Your task to perform on an android device: Open settings on Google Maps Image 0: 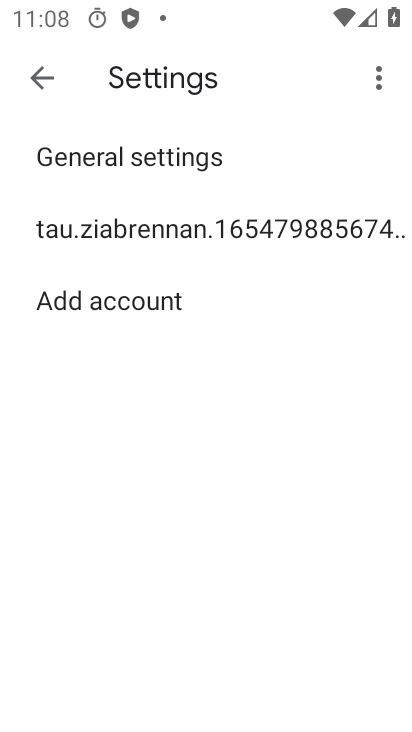
Step 0: press back button
Your task to perform on an android device: Open settings on Google Maps Image 1: 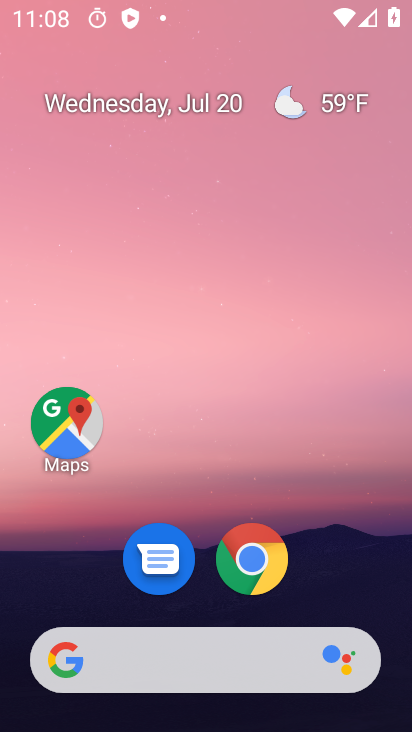
Step 1: press back button
Your task to perform on an android device: Open settings on Google Maps Image 2: 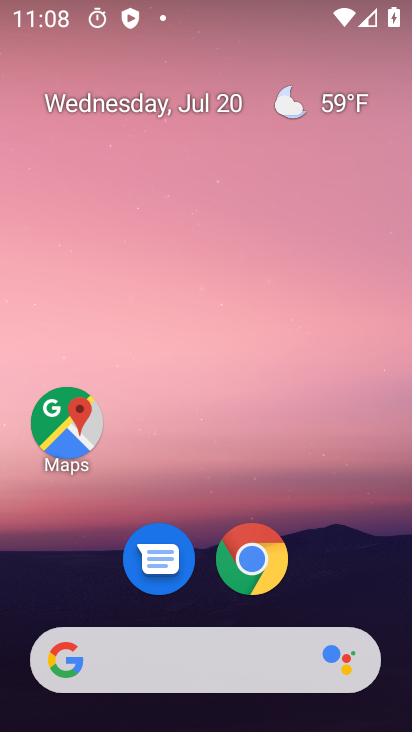
Step 2: click (69, 433)
Your task to perform on an android device: Open settings on Google Maps Image 3: 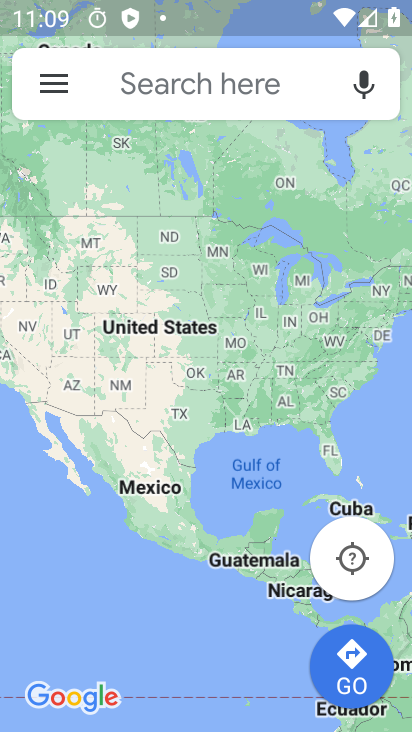
Step 3: click (58, 79)
Your task to perform on an android device: Open settings on Google Maps Image 4: 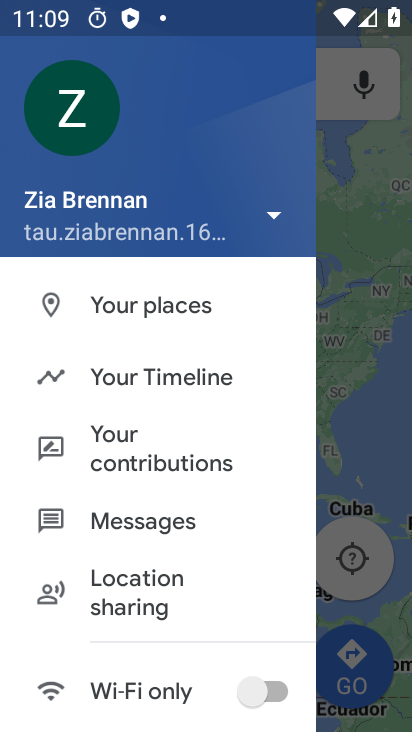
Step 4: drag from (189, 465) to (185, 94)
Your task to perform on an android device: Open settings on Google Maps Image 5: 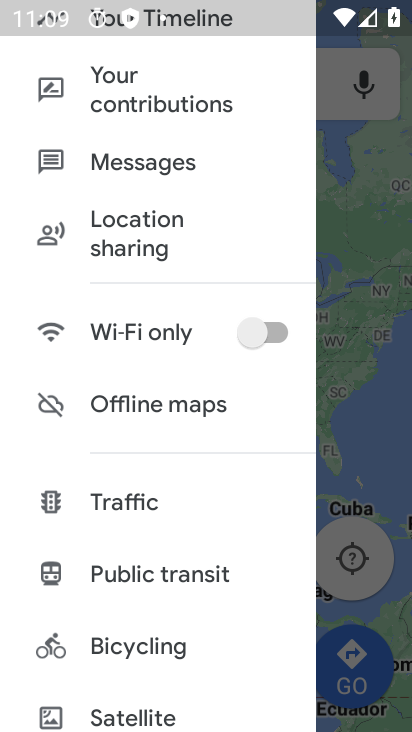
Step 5: drag from (143, 639) to (188, 120)
Your task to perform on an android device: Open settings on Google Maps Image 6: 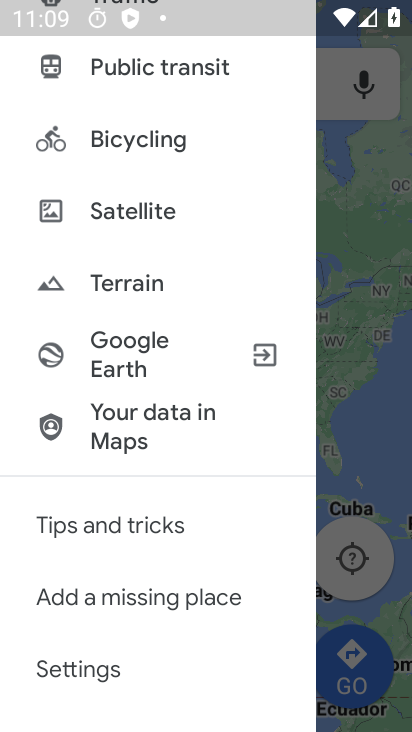
Step 6: click (75, 684)
Your task to perform on an android device: Open settings on Google Maps Image 7: 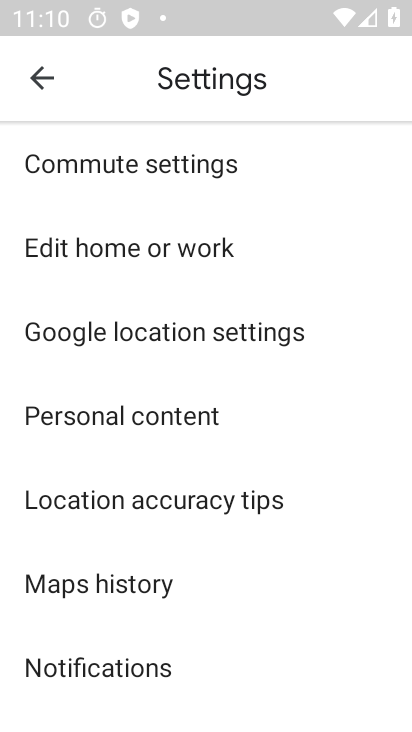
Step 7: task complete